Your task to perform on an android device: install app "Nova Launcher" Image 0: 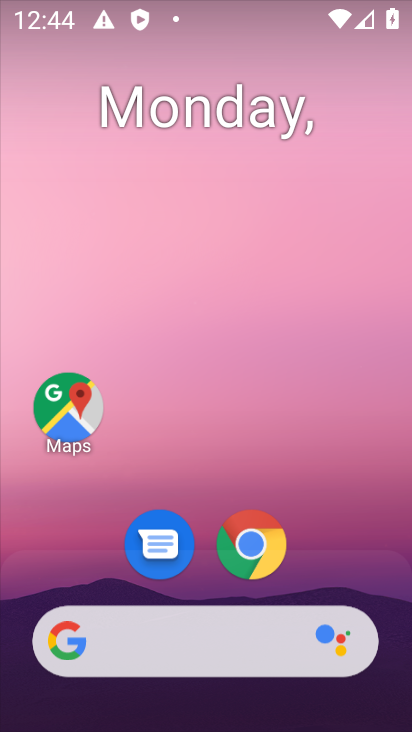
Step 0: drag from (334, 560) to (241, 10)
Your task to perform on an android device: install app "Nova Launcher" Image 1: 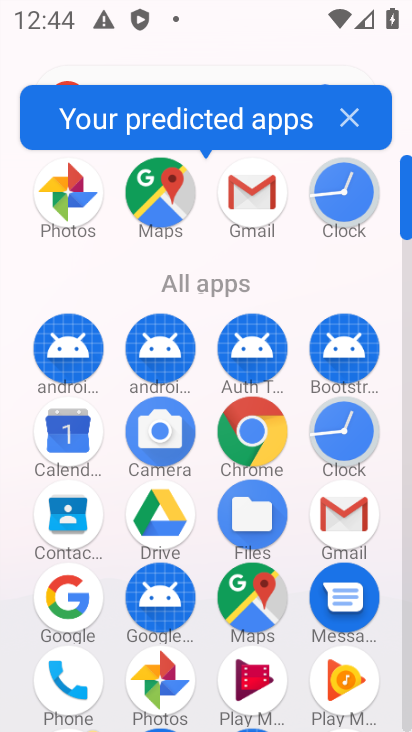
Step 1: drag from (108, 620) to (59, 234)
Your task to perform on an android device: install app "Nova Launcher" Image 2: 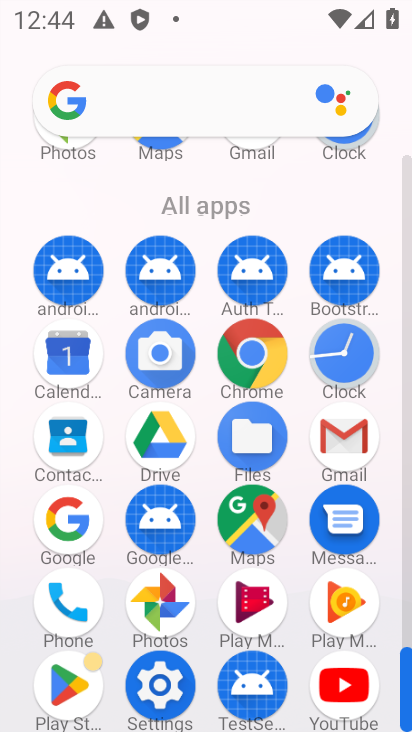
Step 2: click (61, 669)
Your task to perform on an android device: install app "Nova Launcher" Image 3: 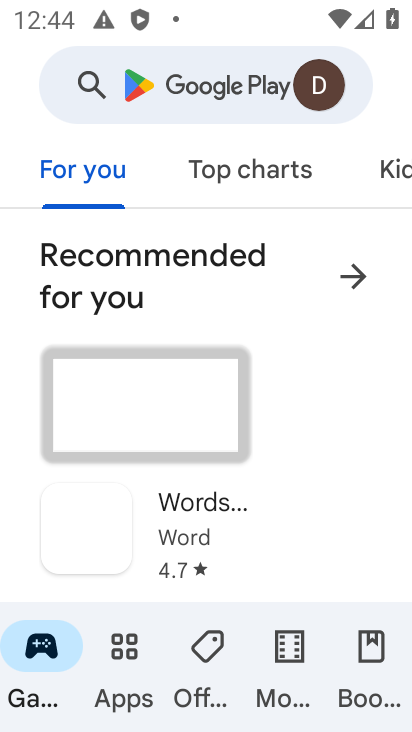
Step 3: click (184, 88)
Your task to perform on an android device: install app "Nova Launcher" Image 4: 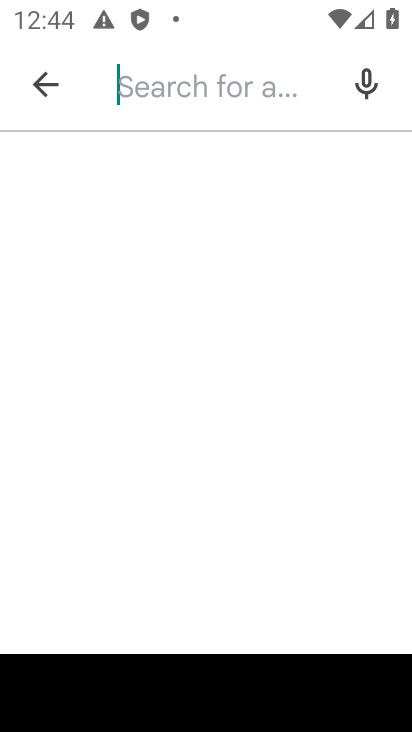
Step 4: type "Nova Launcher"
Your task to perform on an android device: install app "Nova Launcher" Image 5: 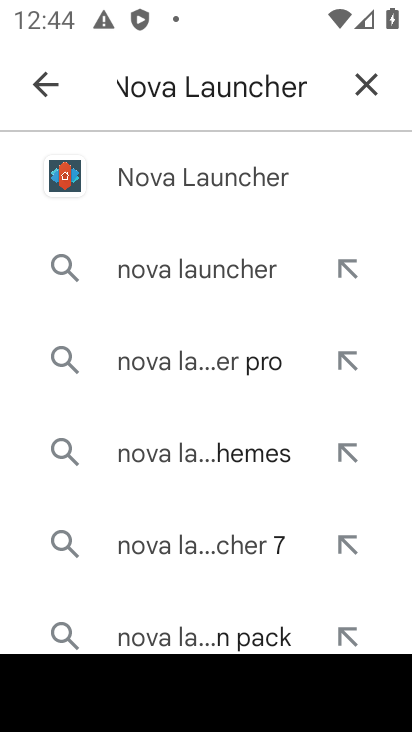
Step 5: click (132, 182)
Your task to perform on an android device: install app "Nova Launcher" Image 6: 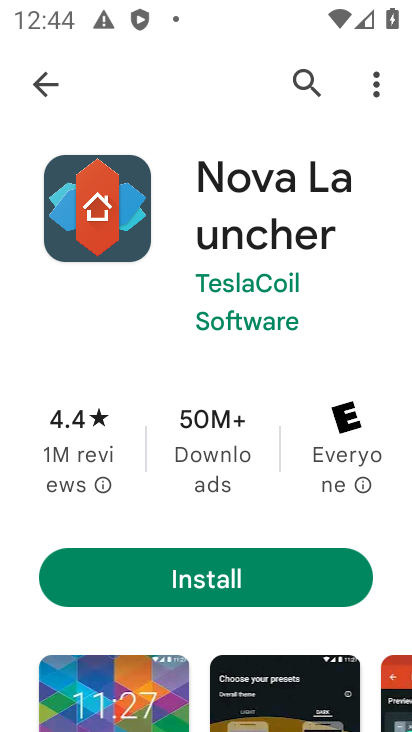
Step 6: click (186, 582)
Your task to perform on an android device: install app "Nova Launcher" Image 7: 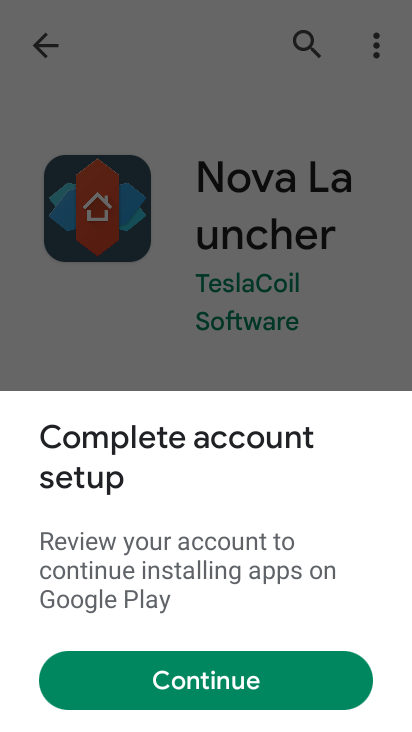
Step 7: click (194, 686)
Your task to perform on an android device: install app "Nova Launcher" Image 8: 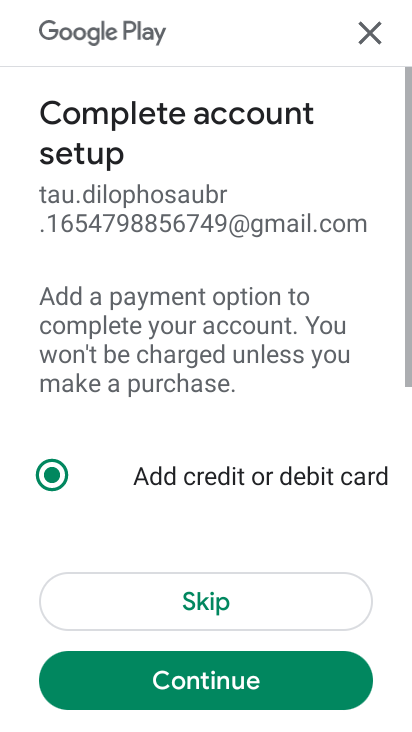
Step 8: click (223, 592)
Your task to perform on an android device: install app "Nova Launcher" Image 9: 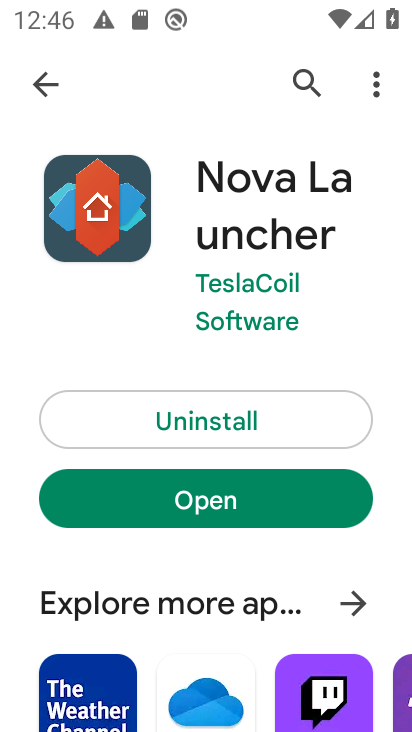
Step 9: task complete